Your task to perform on an android device: Go to Amazon Image 0: 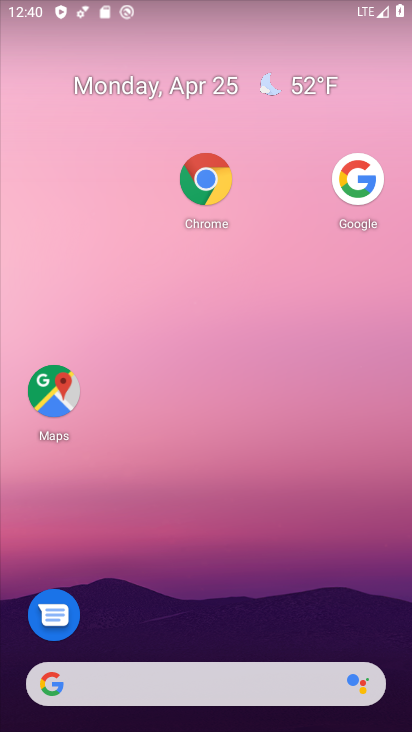
Step 0: press home button
Your task to perform on an android device: Go to Amazon Image 1: 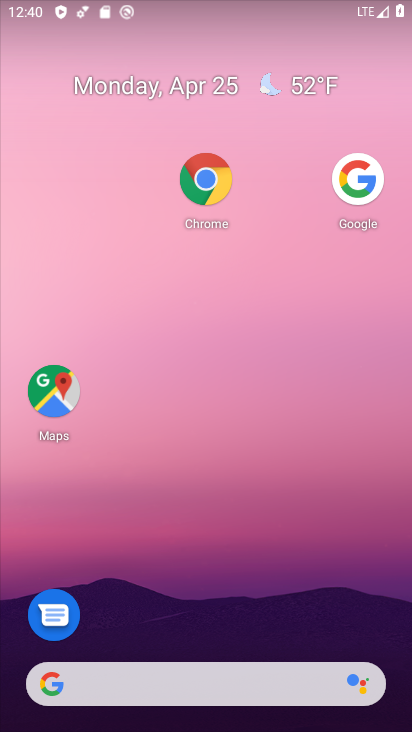
Step 1: drag from (176, 659) to (362, 50)
Your task to perform on an android device: Go to Amazon Image 2: 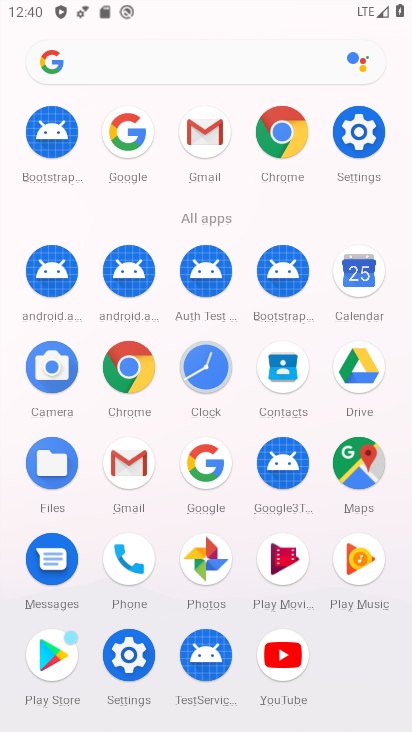
Step 2: click (288, 151)
Your task to perform on an android device: Go to Amazon Image 3: 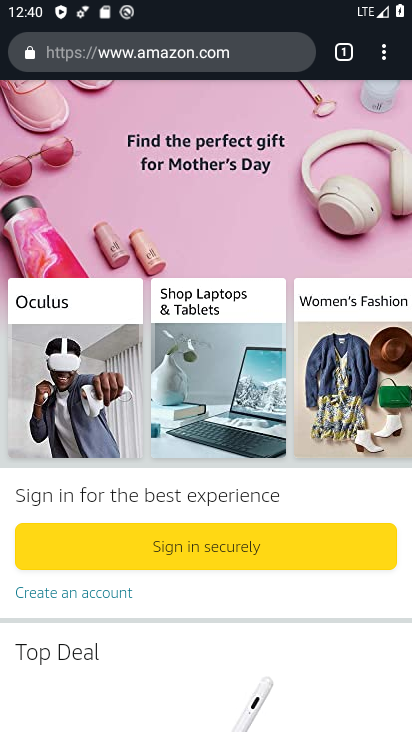
Step 3: drag from (383, 55) to (211, 160)
Your task to perform on an android device: Go to Amazon Image 4: 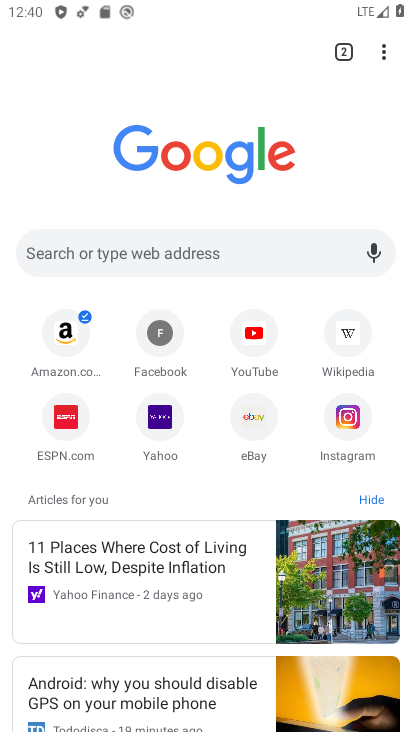
Step 4: click (72, 346)
Your task to perform on an android device: Go to Amazon Image 5: 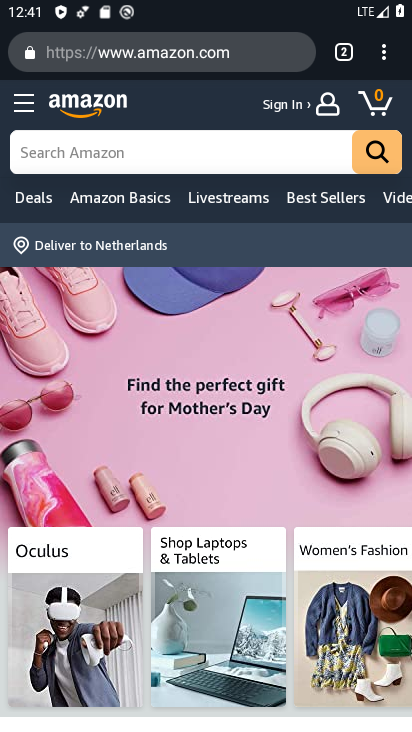
Step 5: task complete